Your task to perform on an android device: Show me the alarms in the clock app Image 0: 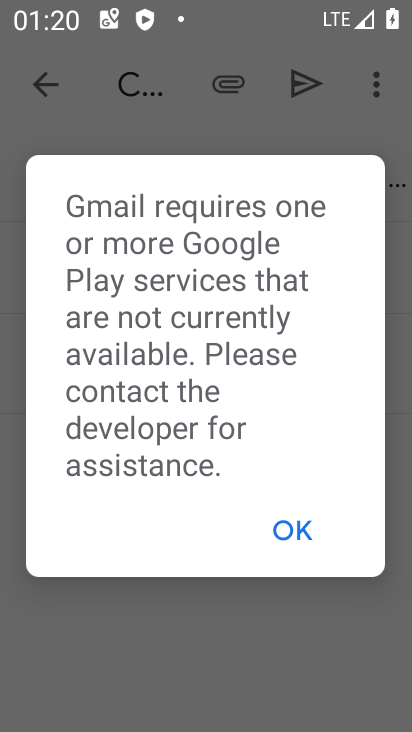
Step 0: press home button
Your task to perform on an android device: Show me the alarms in the clock app Image 1: 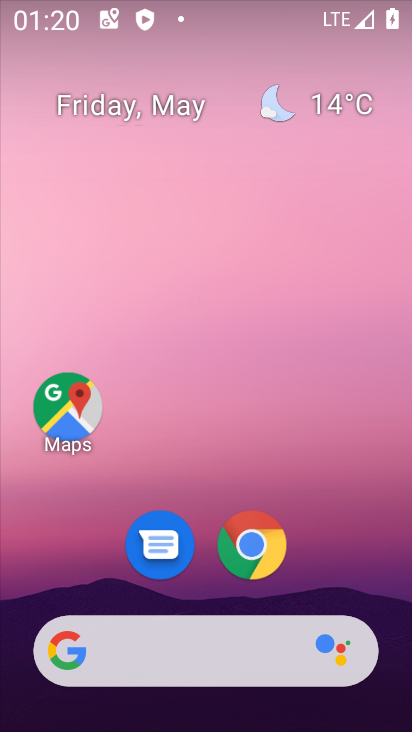
Step 1: drag from (302, 547) to (265, 237)
Your task to perform on an android device: Show me the alarms in the clock app Image 2: 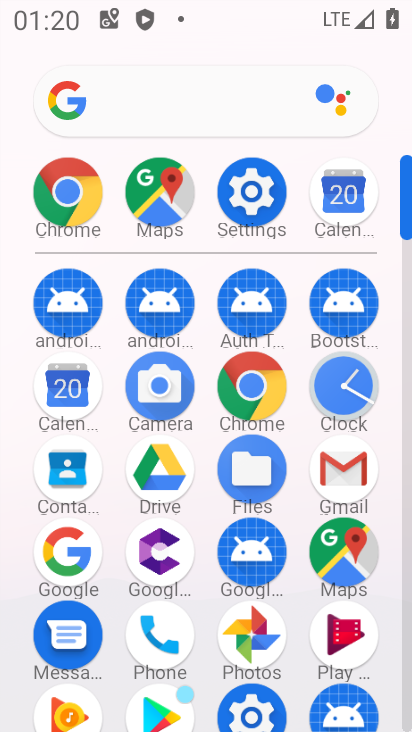
Step 2: click (337, 408)
Your task to perform on an android device: Show me the alarms in the clock app Image 3: 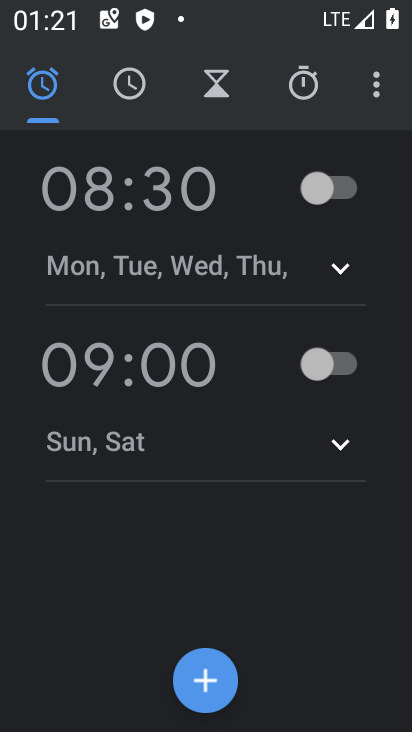
Step 3: task complete